Your task to perform on an android device: change alarm snooze length Image 0: 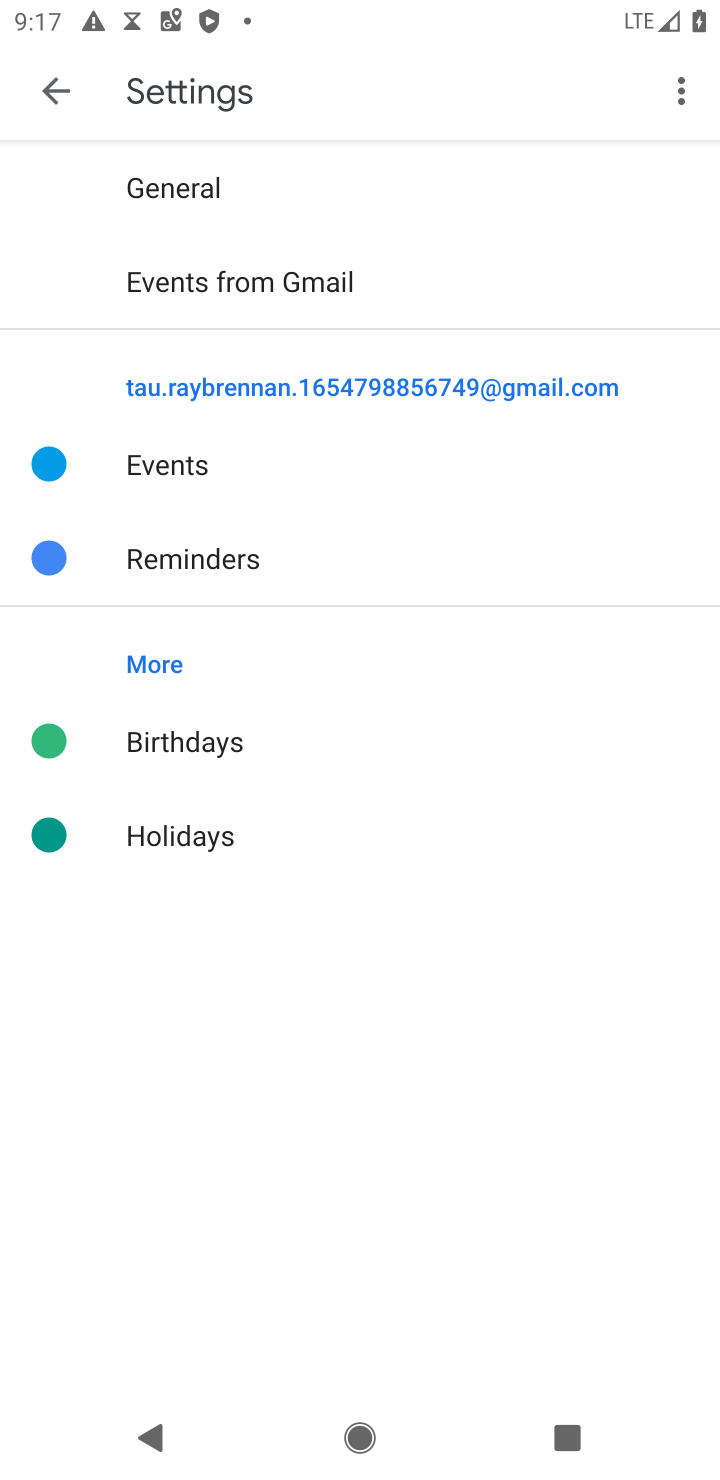
Step 0: press back button
Your task to perform on an android device: change alarm snooze length Image 1: 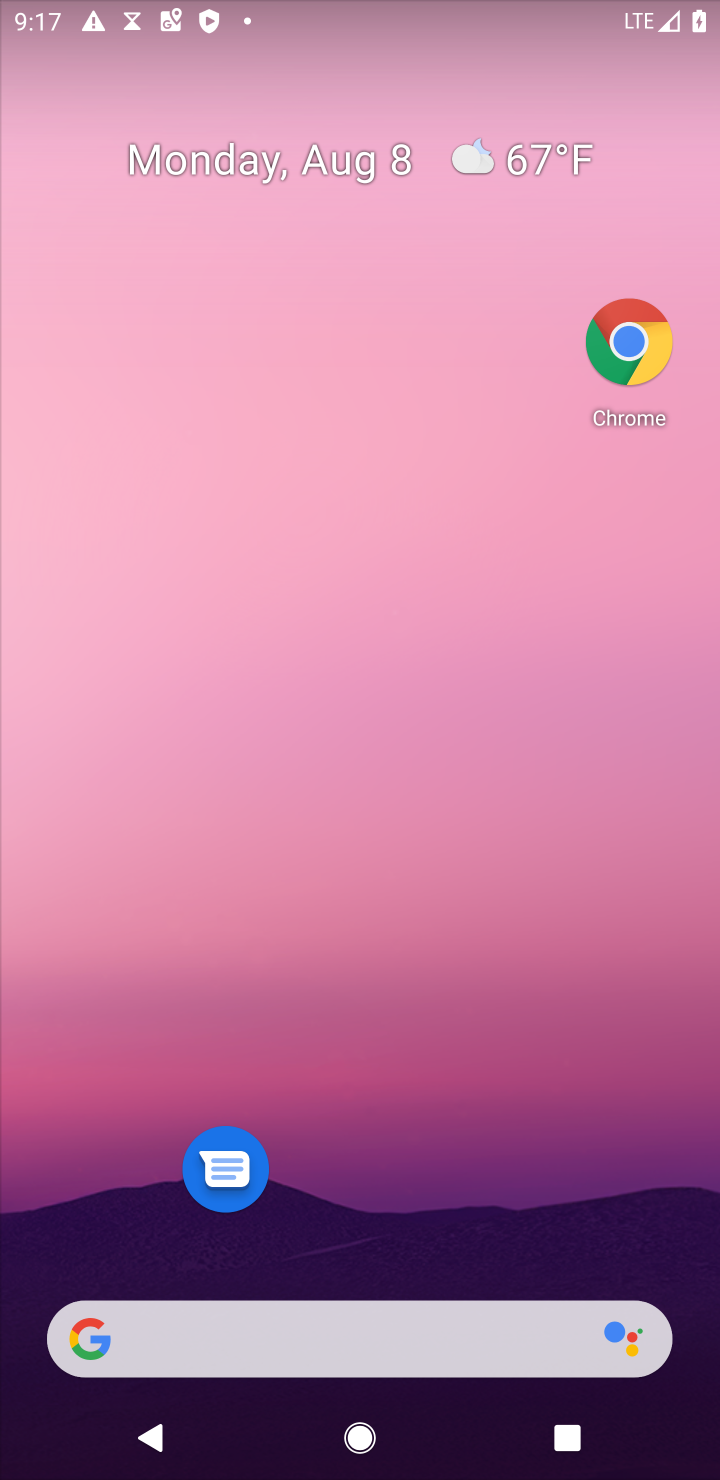
Step 1: drag from (524, 1118) to (558, 12)
Your task to perform on an android device: change alarm snooze length Image 2: 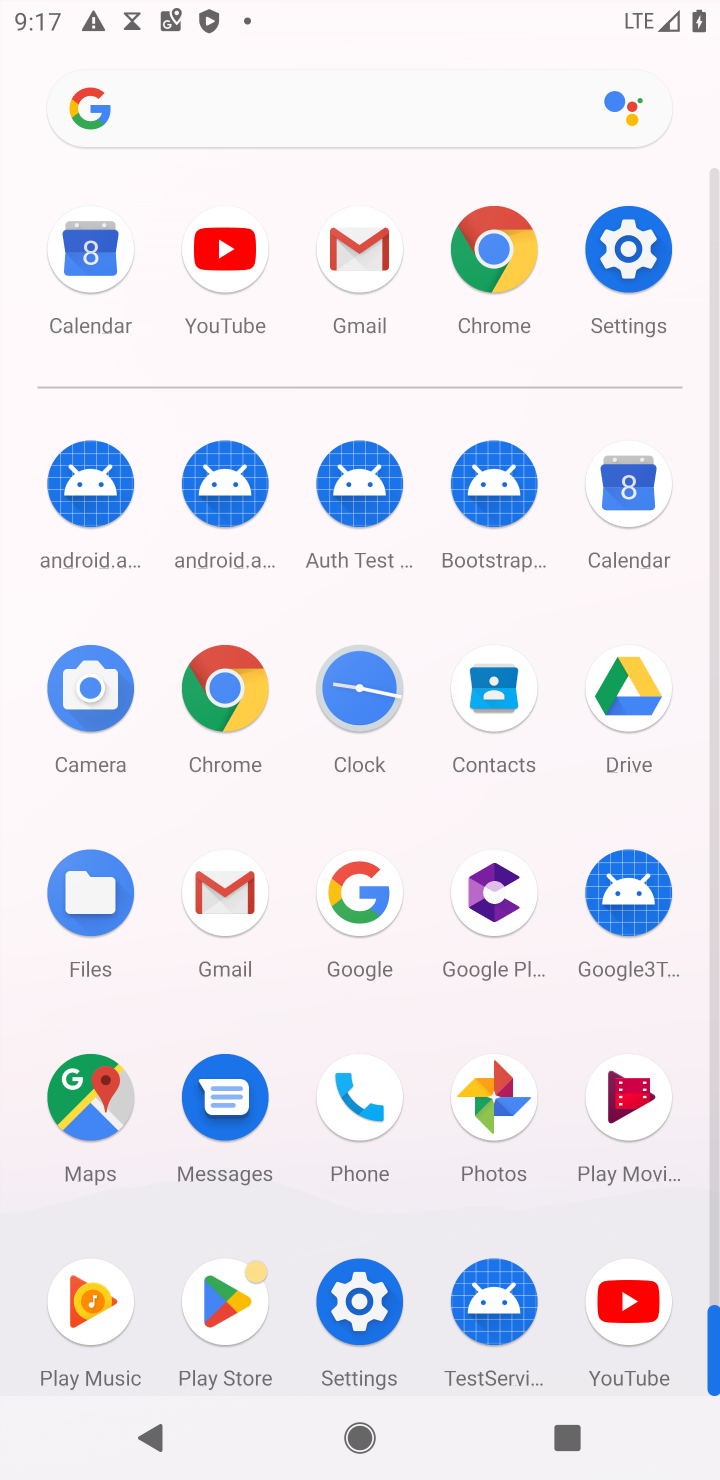
Step 2: click (352, 690)
Your task to perform on an android device: change alarm snooze length Image 3: 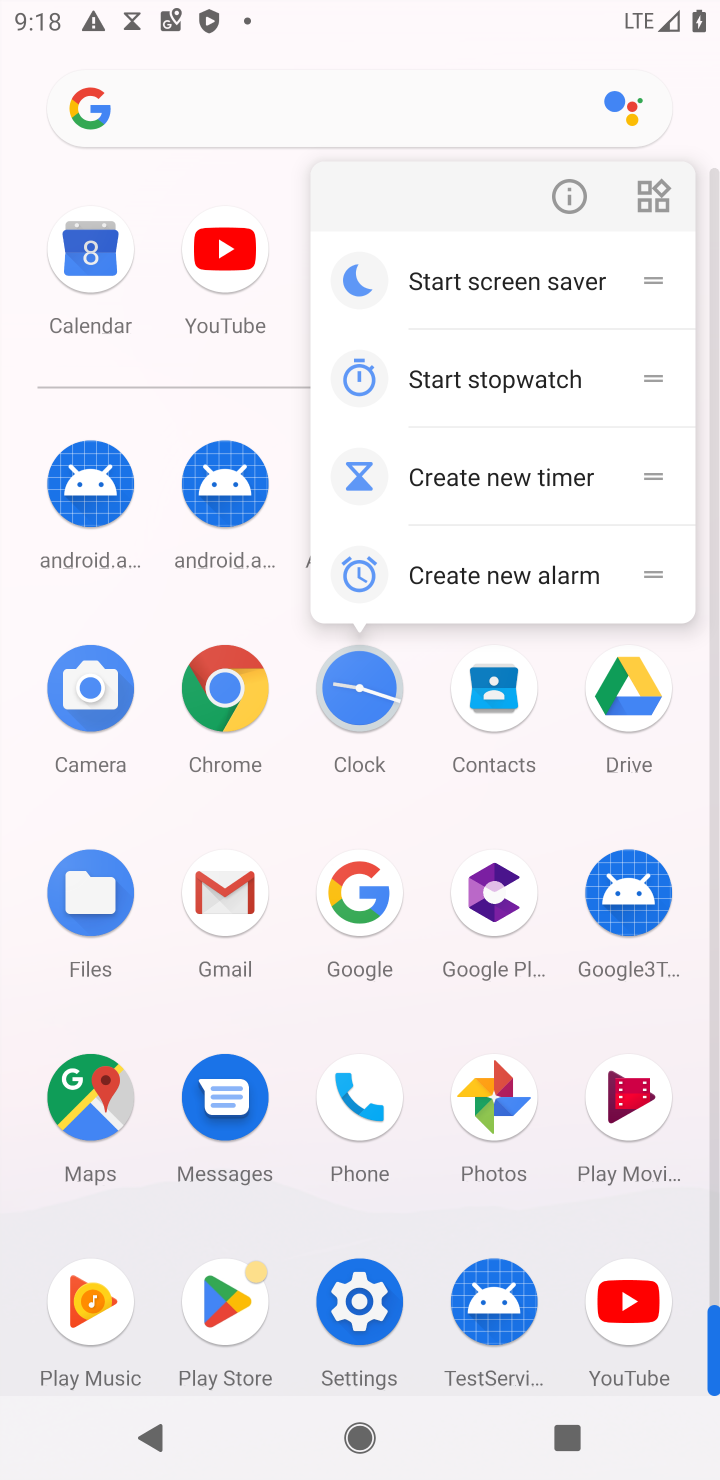
Step 3: click (360, 705)
Your task to perform on an android device: change alarm snooze length Image 4: 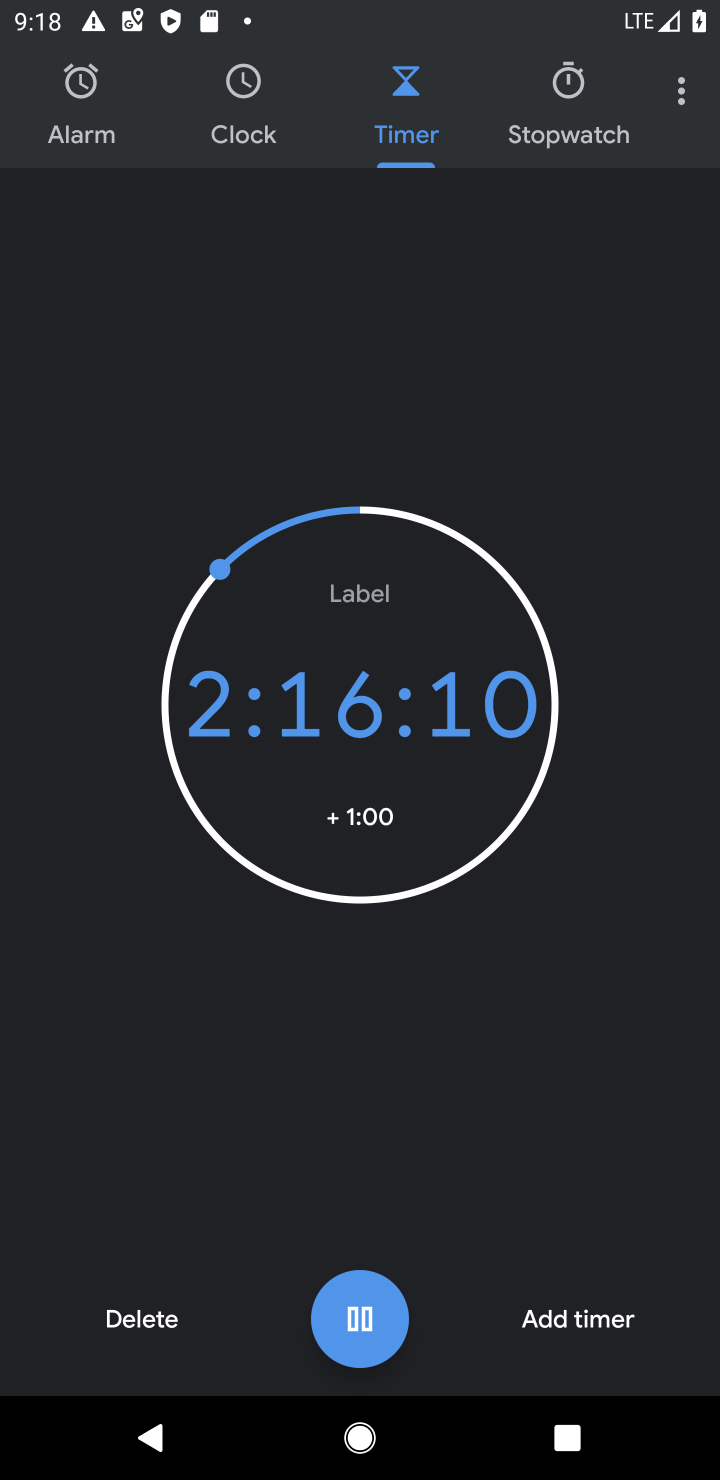
Step 4: click (676, 90)
Your task to perform on an android device: change alarm snooze length Image 5: 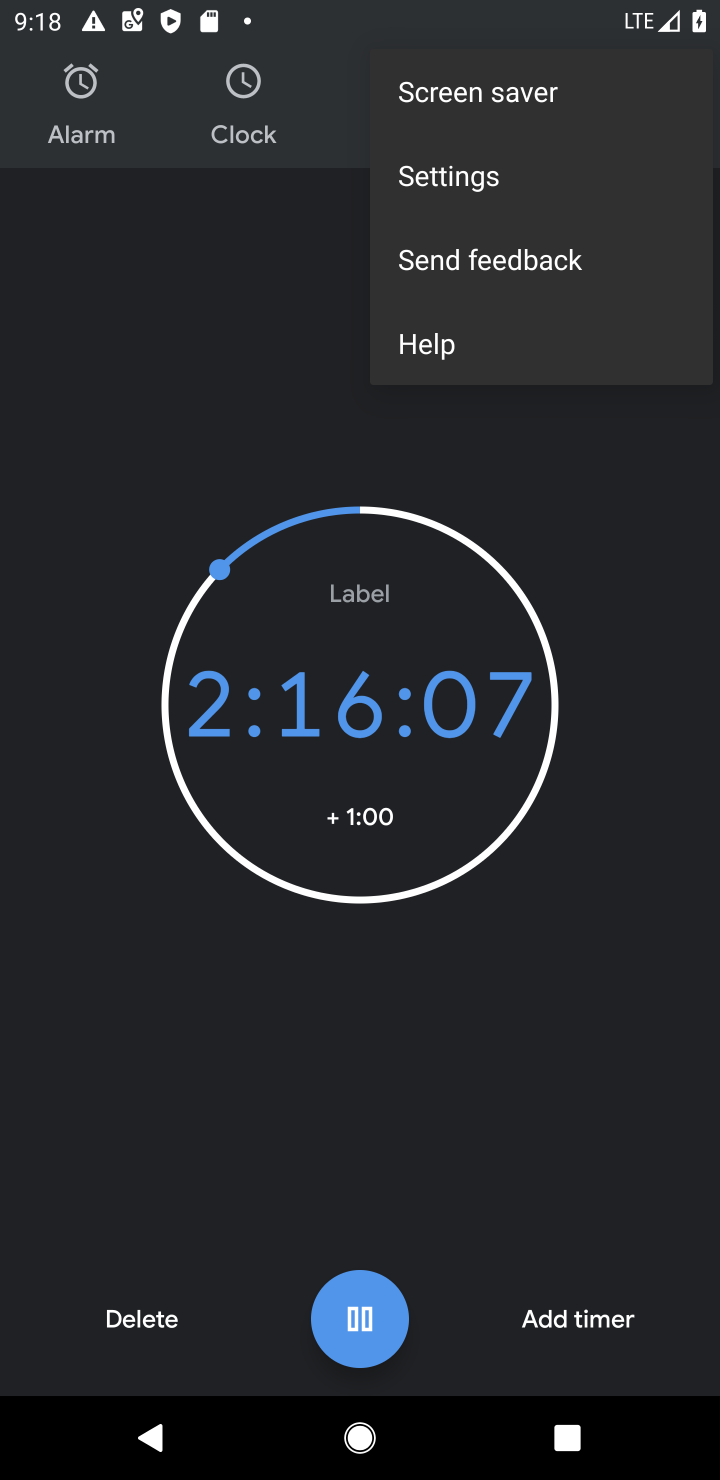
Step 5: click (565, 175)
Your task to perform on an android device: change alarm snooze length Image 6: 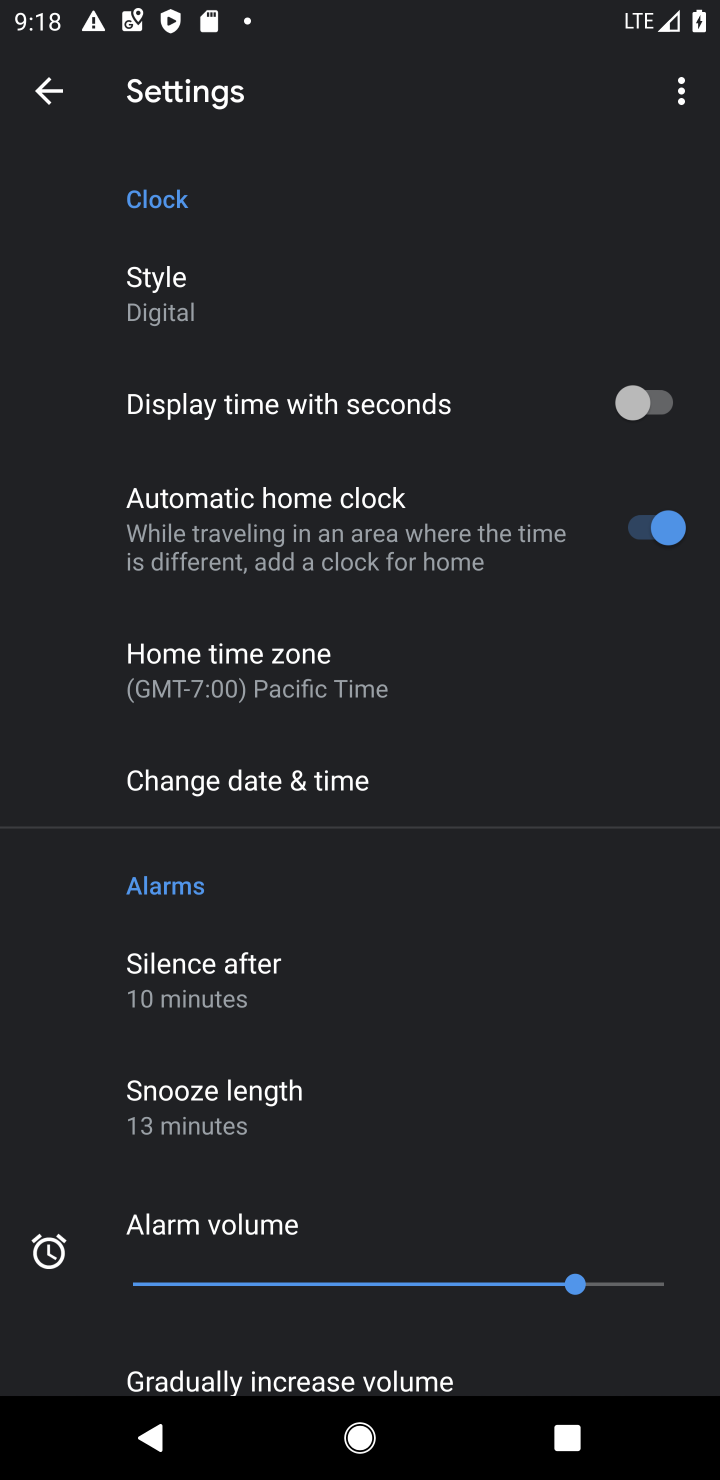
Step 6: click (243, 1080)
Your task to perform on an android device: change alarm snooze length Image 7: 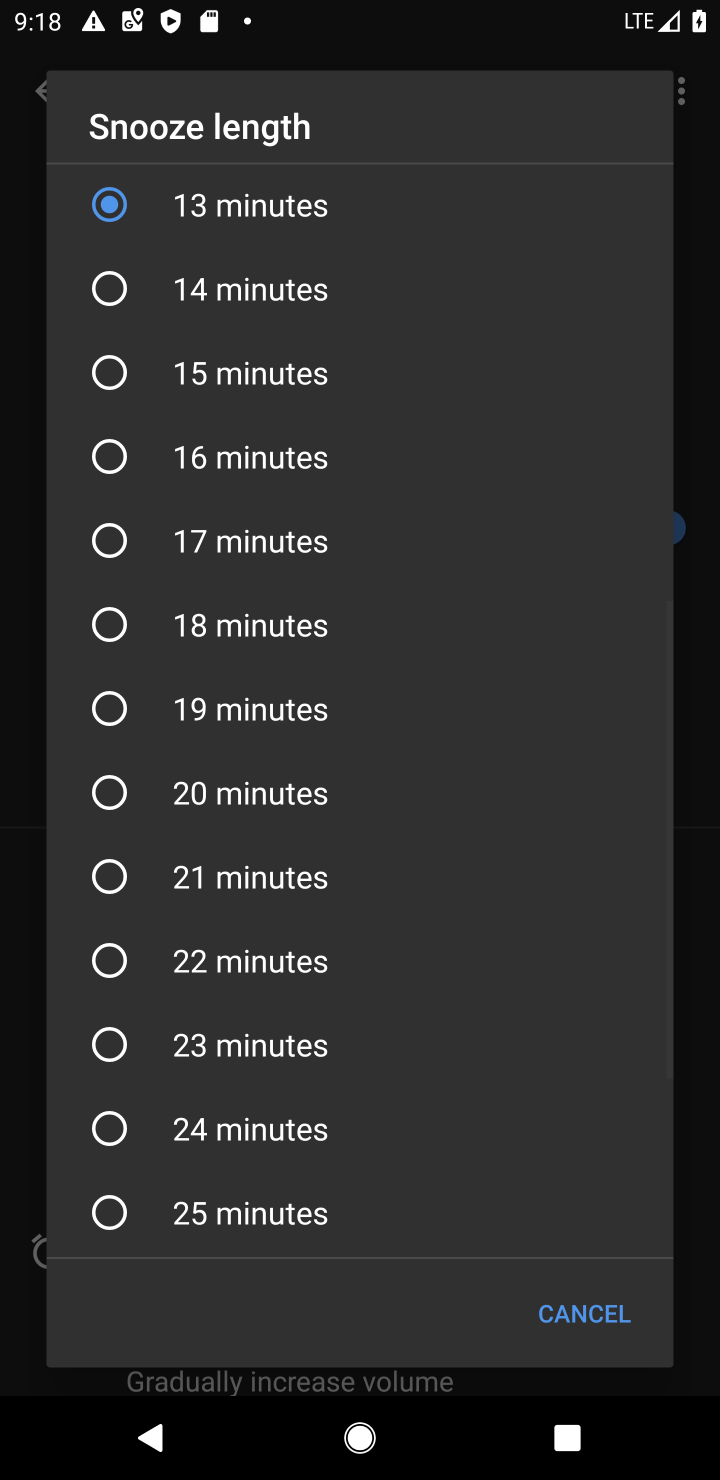
Step 7: click (122, 290)
Your task to perform on an android device: change alarm snooze length Image 8: 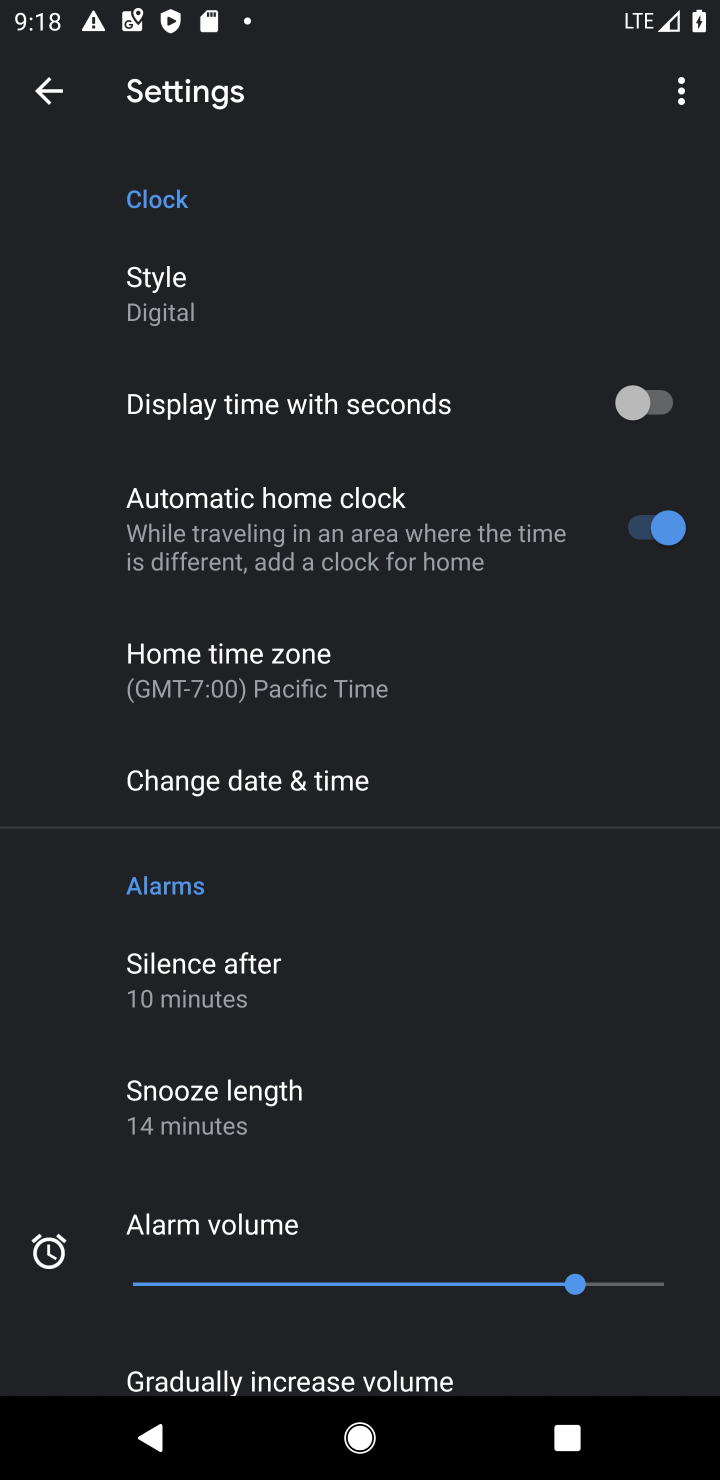
Step 8: task complete